Your task to perform on an android device: Open notification settings Image 0: 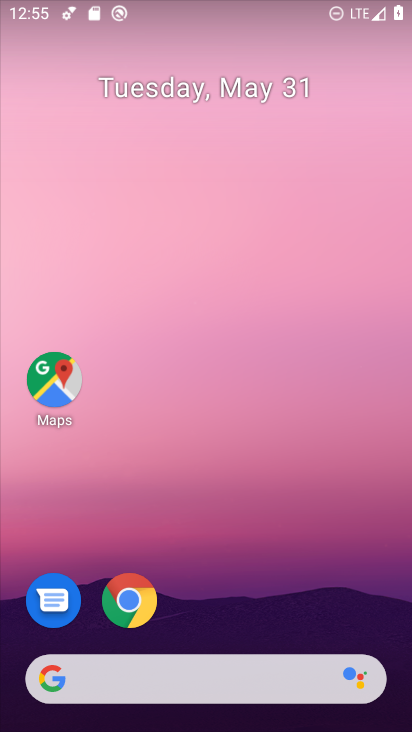
Step 0: drag from (244, 690) to (244, 8)
Your task to perform on an android device: Open notification settings Image 1: 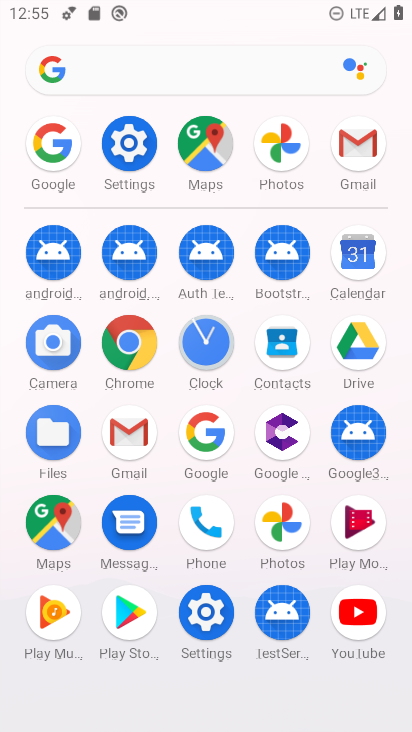
Step 1: click (121, 137)
Your task to perform on an android device: Open notification settings Image 2: 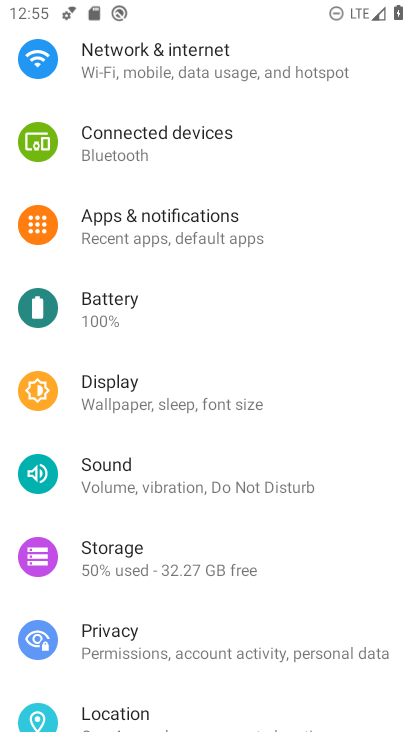
Step 2: click (179, 221)
Your task to perform on an android device: Open notification settings Image 3: 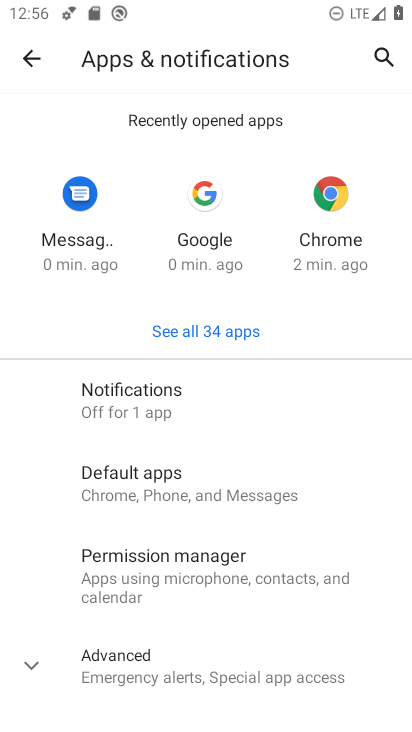
Step 3: click (121, 402)
Your task to perform on an android device: Open notification settings Image 4: 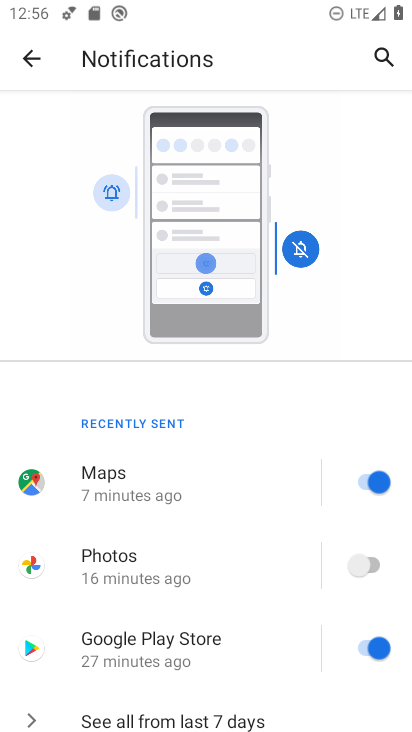
Step 4: task complete